Your task to perform on an android device: create a new album in the google photos Image 0: 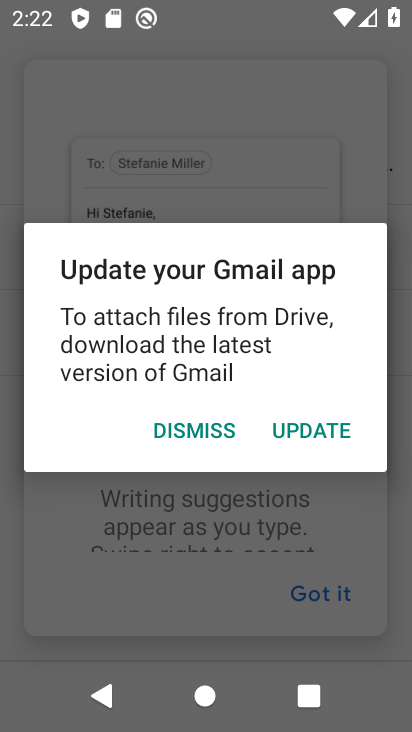
Step 0: press home button
Your task to perform on an android device: create a new album in the google photos Image 1: 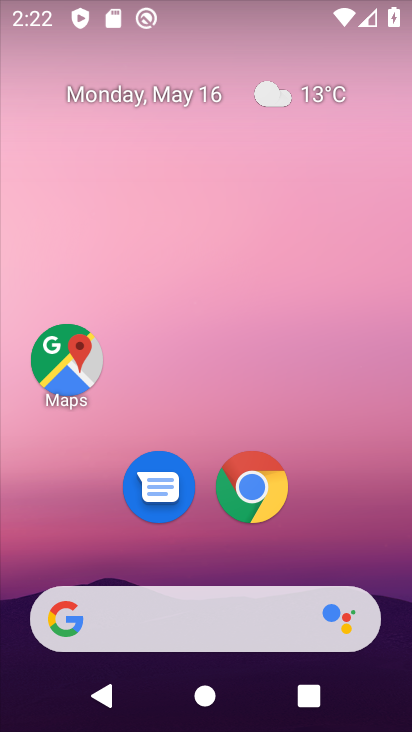
Step 1: click (339, 514)
Your task to perform on an android device: create a new album in the google photos Image 2: 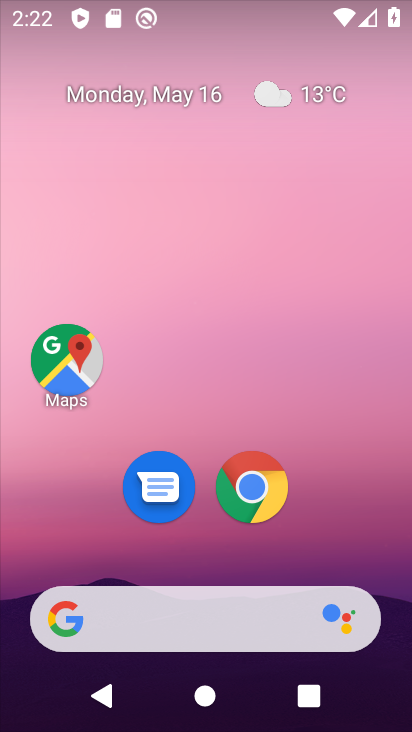
Step 2: drag from (223, 311) to (81, 77)
Your task to perform on an android device: create a new album in the google photos Image 3: 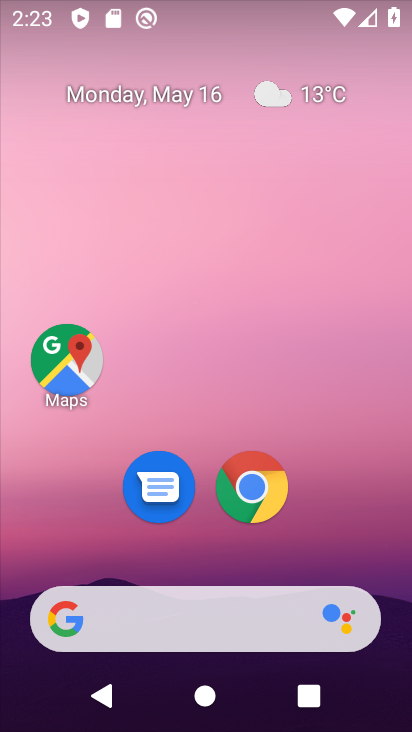
Step 3: drag from (327, 562) to (342, 179)
Your task to perform on an android device: create a new album in the google photos Image 4: 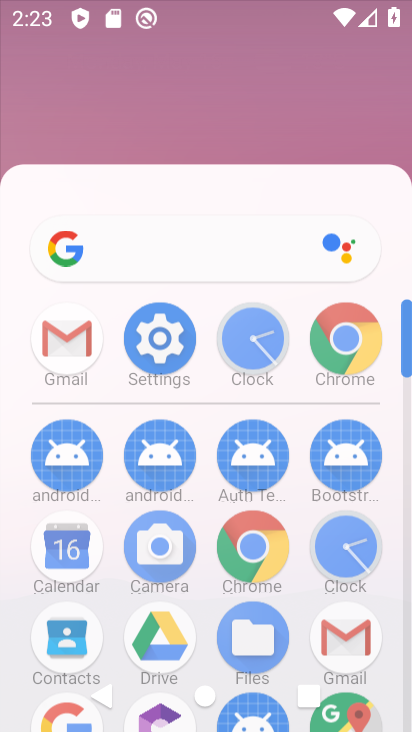
Step 4: drag from (356, 65) to (356, 11)
Your task to perform on an android device: create a new album in the google photos Image 5: 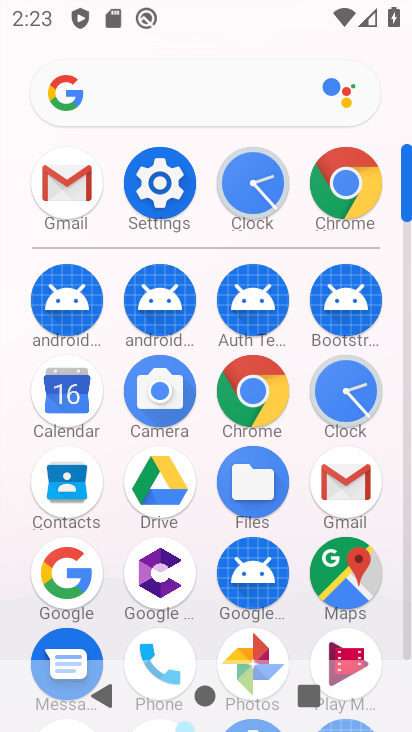
Step 5: drag from (276, 617) to (263, 269)
Your task to perform on an android device: create a new album in the google photos Image 6: 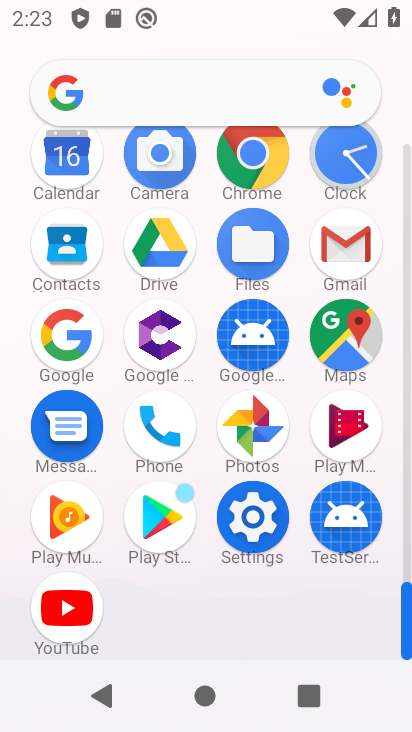
Step 6: click (241, 432)
Your task to perform on an android device: create a new album in the google photos Image 7: 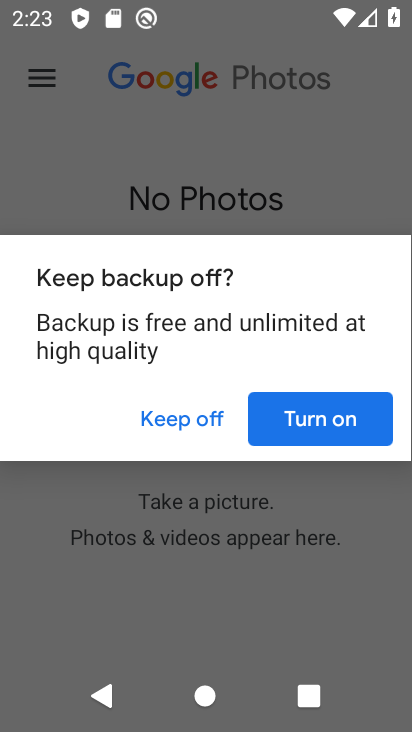
Step 7: click (186, 419)
Your task to perform on an android device: create a new album in the google photos Image 8: 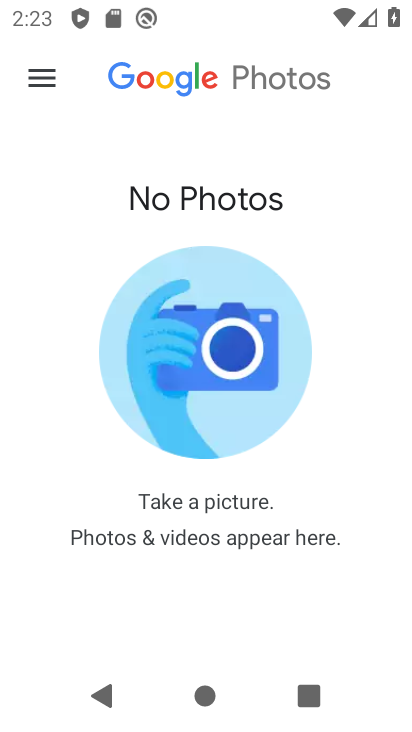
Step 8: click (43, 85)
Your task to perform on an android device: create a new album in the google photos Image 9: 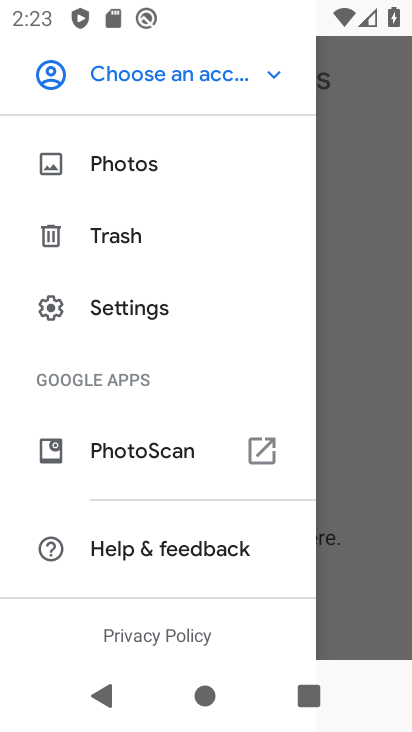
Step 9: click (337, 275)
Your task to perform on an android device: create a new album in the google photos Image 10: 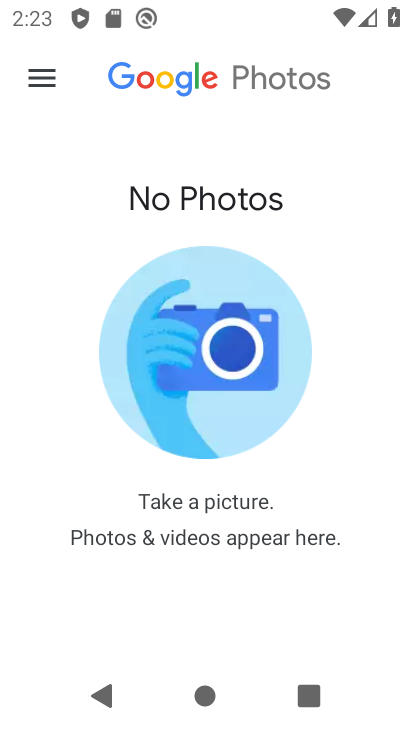
Step 10: click (186, 80)
Your task to perform on an android device: create a new album in the google photos Image 11: 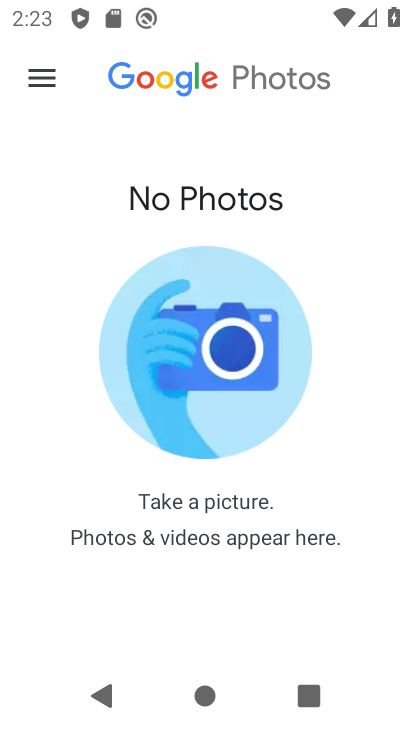
Step 11: click (248, 74)
Your task to perform on an android device: create a new album in the google photos Image 12: 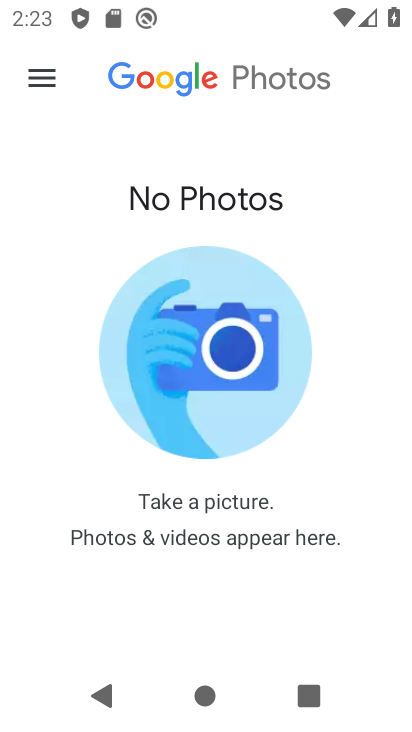
Step 12: task complete